Your task to perform on an android device: choose inbox layout in the gmail app Image 0: 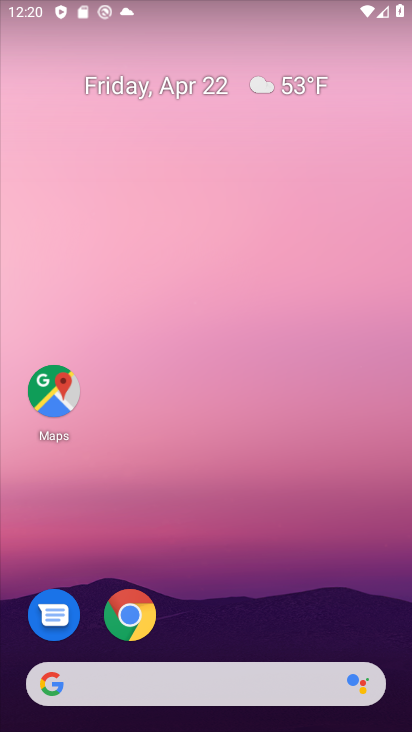
Step 0: drag from (389, 597) to (386, 1)
Your task to perform on an android device: choose inbox layout in the gmail app Image 1: 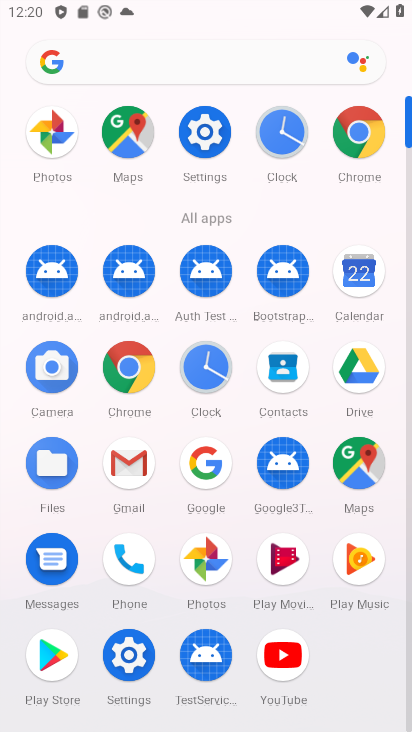
Step 1: click (126, 463)
Your task to perform on an android device: choose inbox layout in the gmail app Image 2: 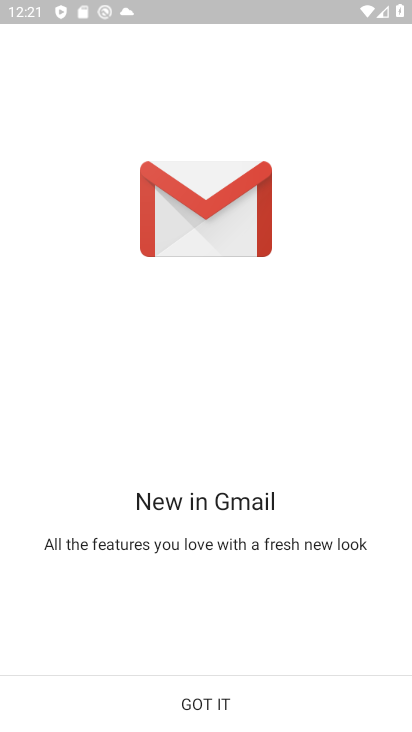
Step 2: click (216, 696)
Your task to perform on an android device: choose inbox layout in the gmail app Image 3: 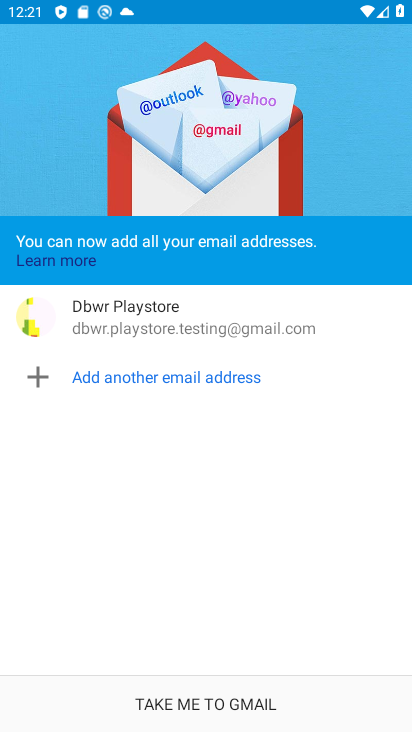
Step 3: click (216, 696)
Your task to perform on an android device: choose inbox layout in the gmail app Image 4: 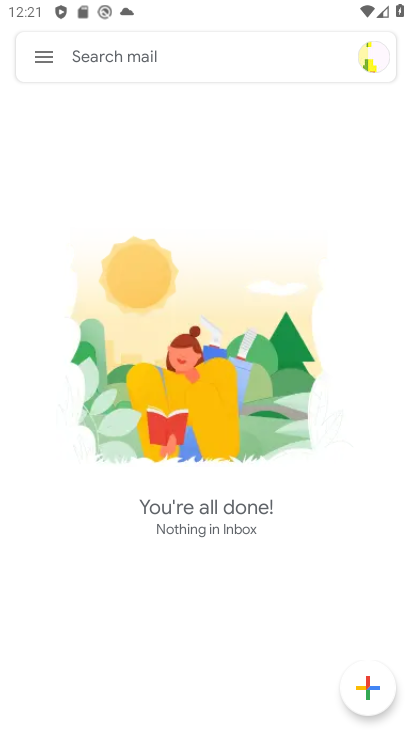
Step 4: click (44, 56)
Your task to perform on an android device: choose inbox layout in the gmail app Image 5: 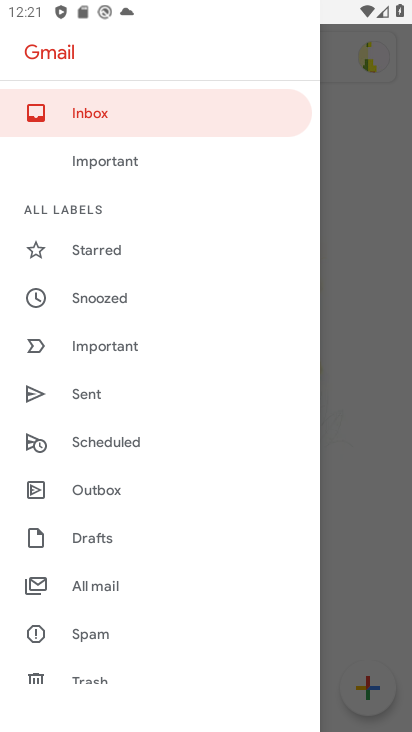
Step 5: drag from (170, 596) to (146, 316)
Your task to perform on an android device: choose inbox layout in the gmail app Image 6: 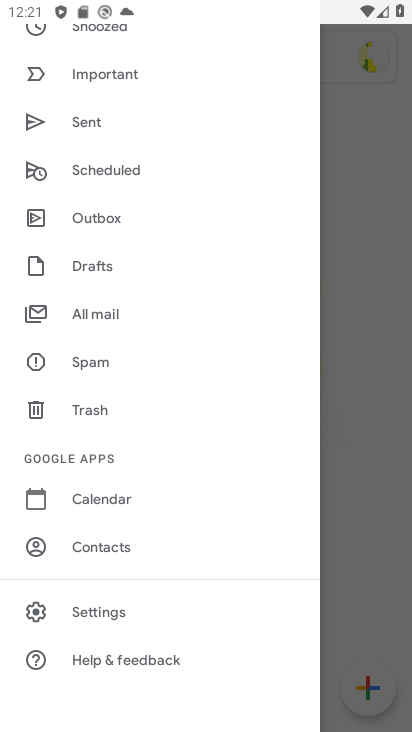
Step 6: click (91, 616)
Your task to perform on an android device: choose inbox layout in the gmail app Image 7: 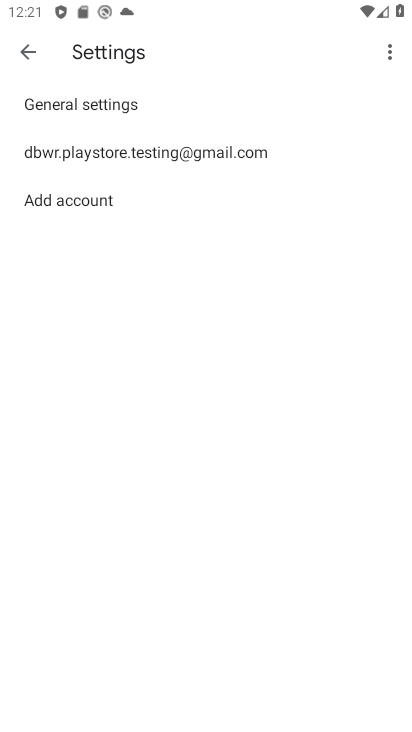
Step 7: click (92, 154)
Your task to perform on an android device: choose inbox layout in the gmail app Image 8: 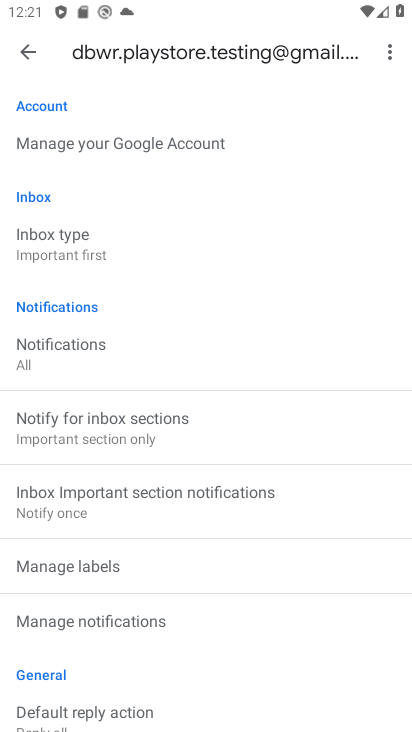
Step 8: click (53, 251)
Your task to perform on an android device: choose inbox layout in the gmail app Image 9: 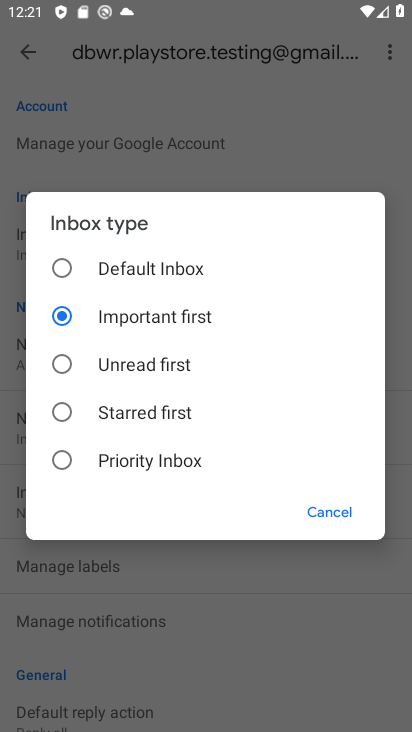
Step 9: click (68, 410)
Your task to perform on an android device: choose inbox layout in the gmail app Image 10: 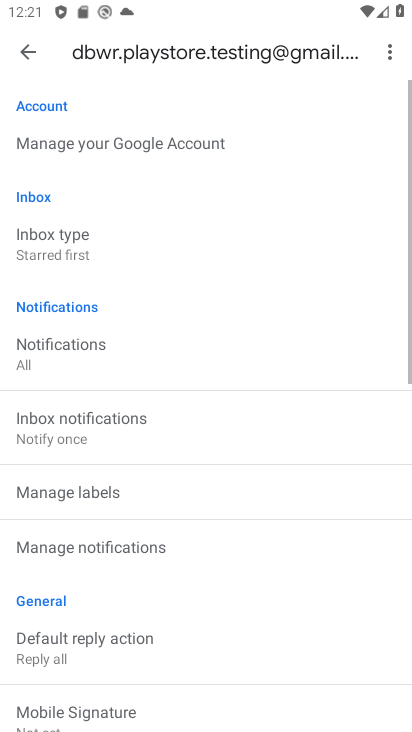
Step 10: task complete